Your task to perform on an android device: Open maps Image 0: 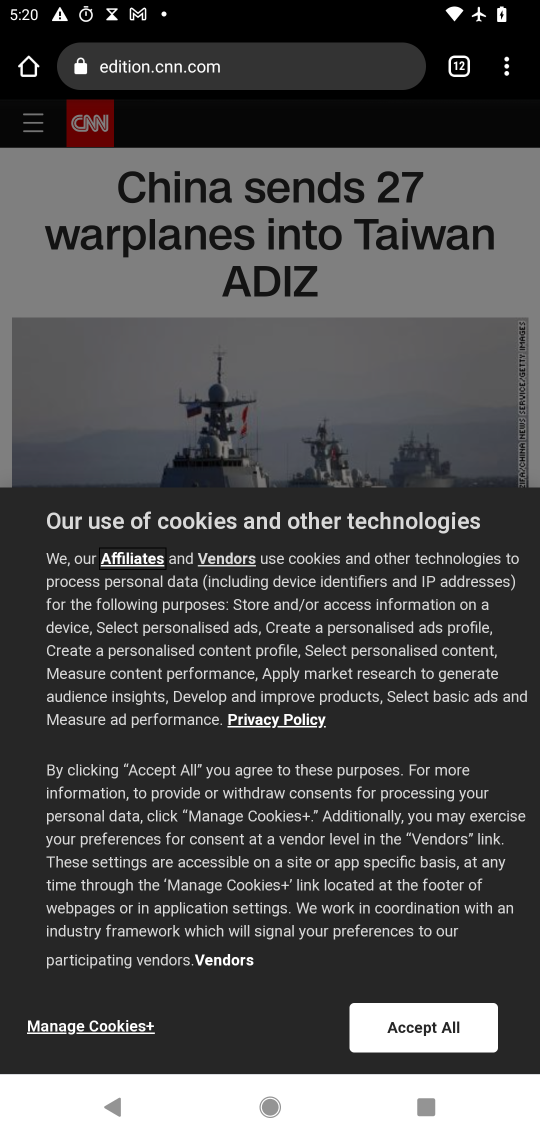
Step 0: press home button
Your task to perform on an android device: Open maps Image 1: 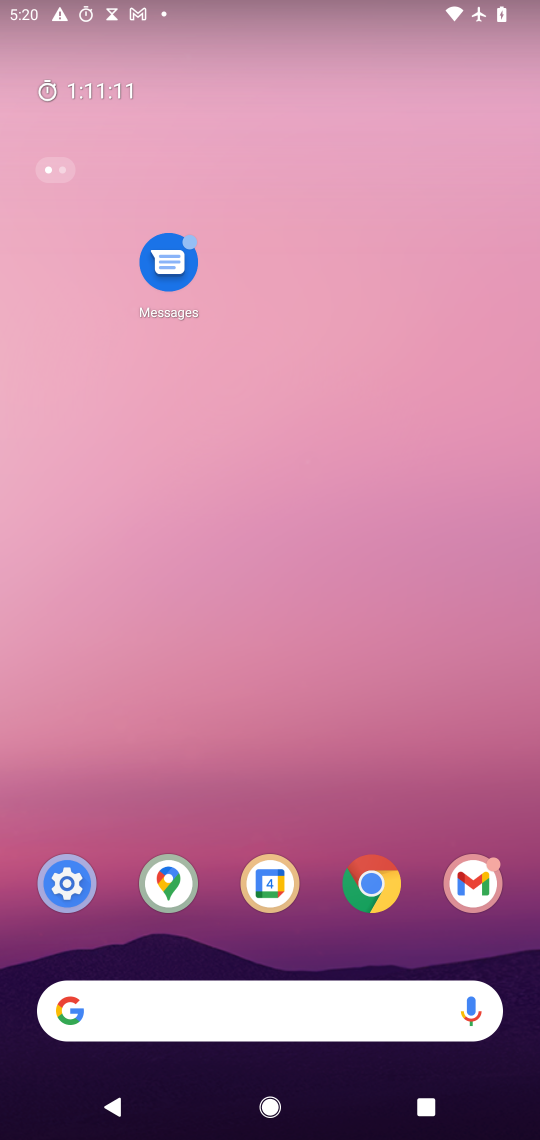
Step 1: drag from (312, 965) to (321, 33)
Your task to perform on an android device: Open maps Image 2: 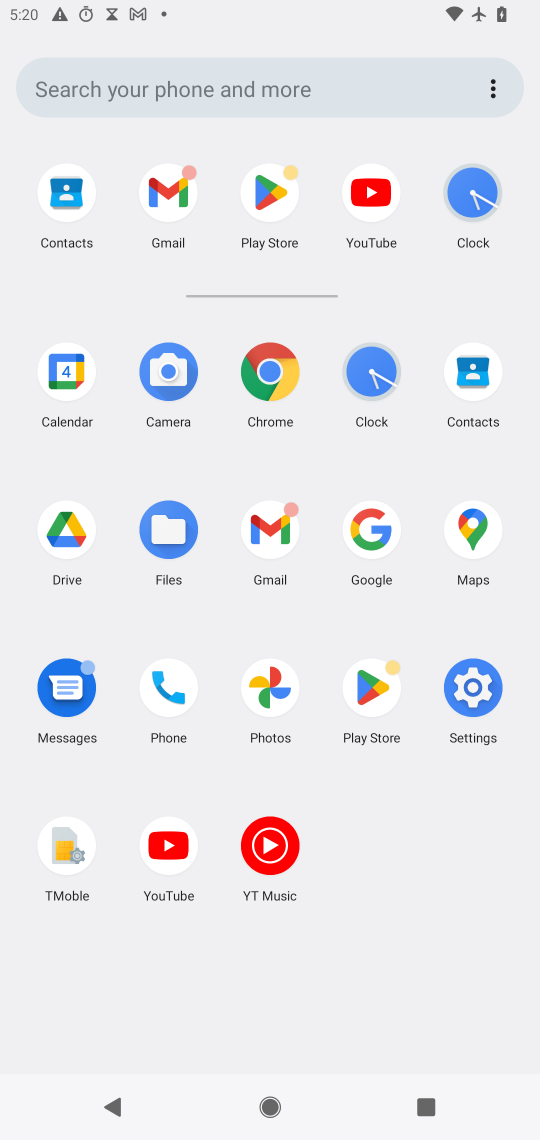
Step 2: click (473, 527)
Your task to perform on an android device: Open maps Image 3: 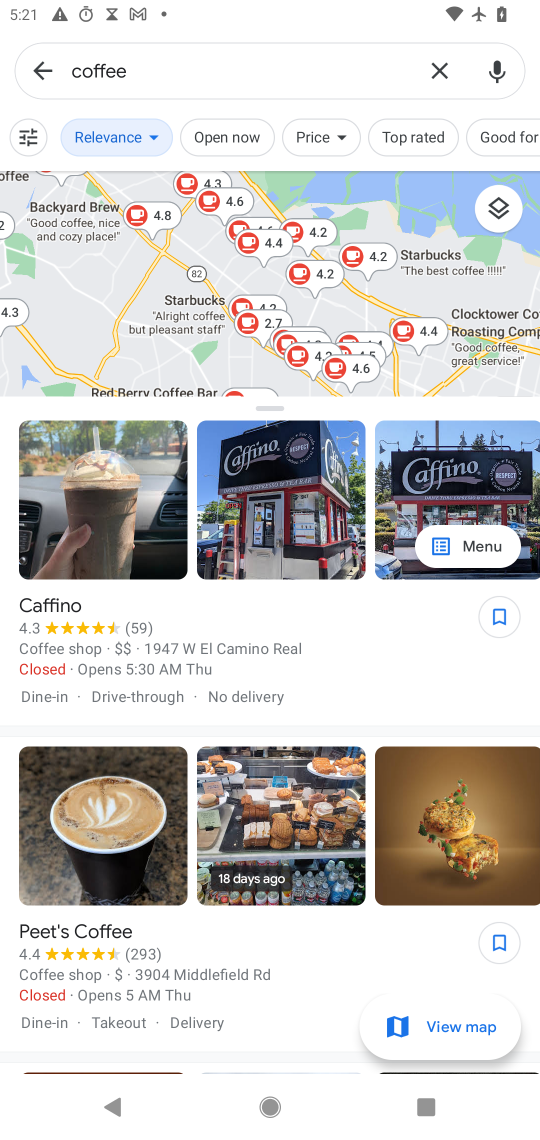
Step 3: task complete